Your task to perform on an android device: remove spam from my inbox in the gmail app Image 0: 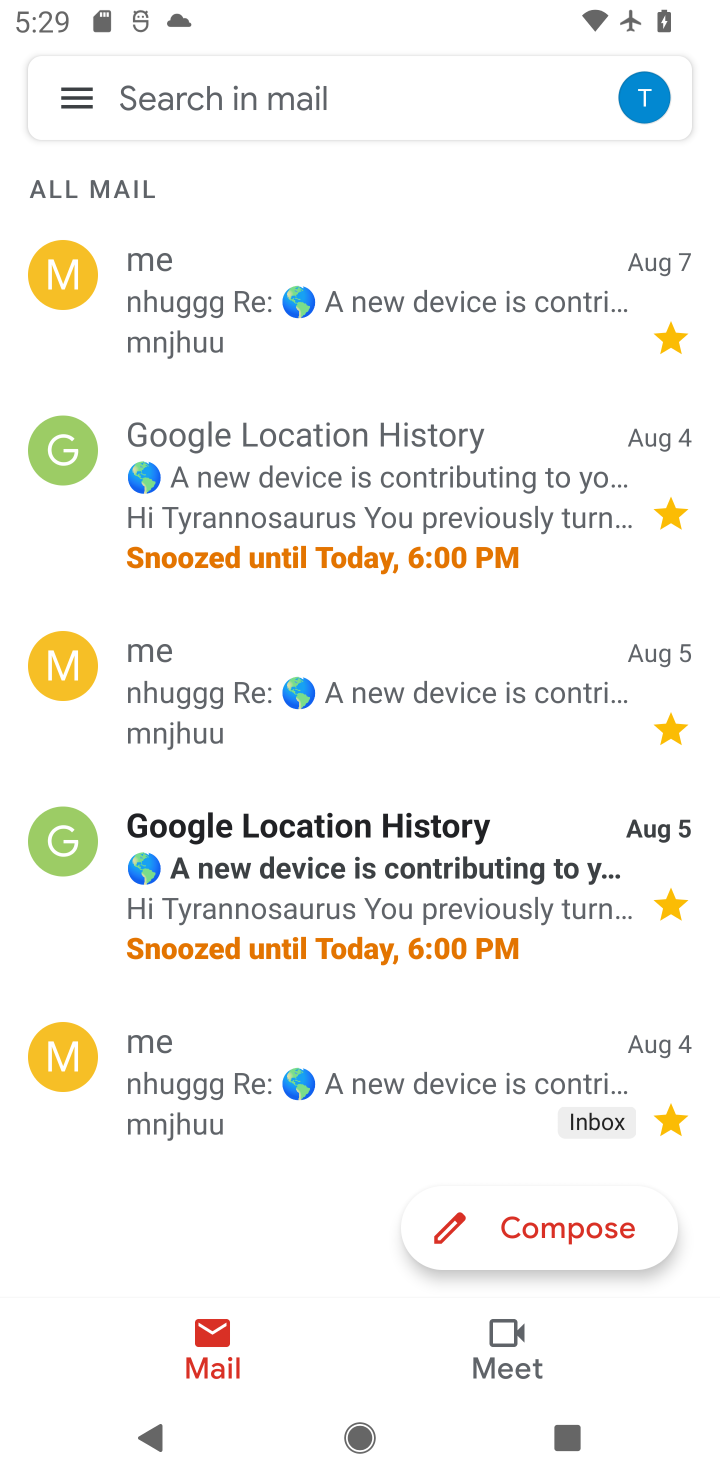
Step 0: click (100, 107)
Your task to perform on an android device: remove spam from my inbox in the gmail app Image 1: 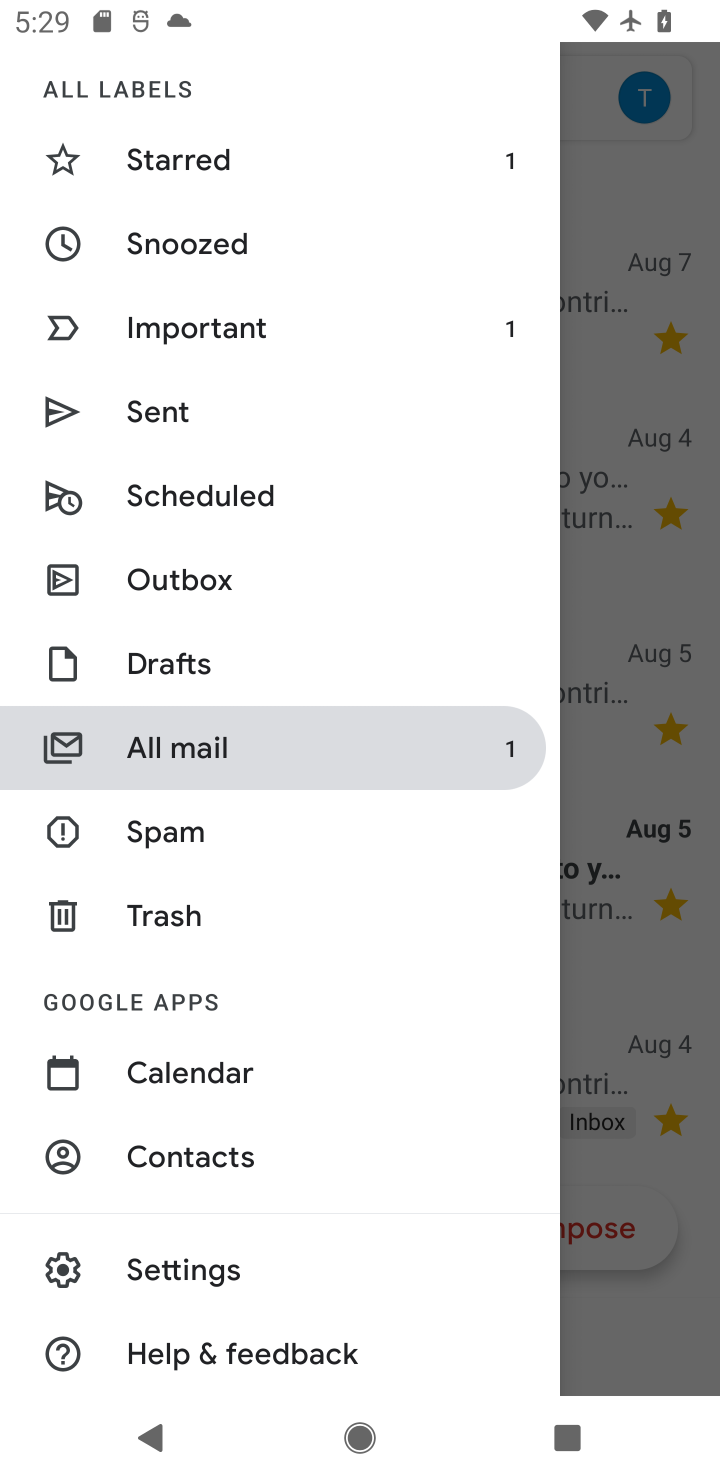
Step 1: click (204, 827)
Your task to perform on an android device: remove spam from my inbox in the gmail app Image 2: 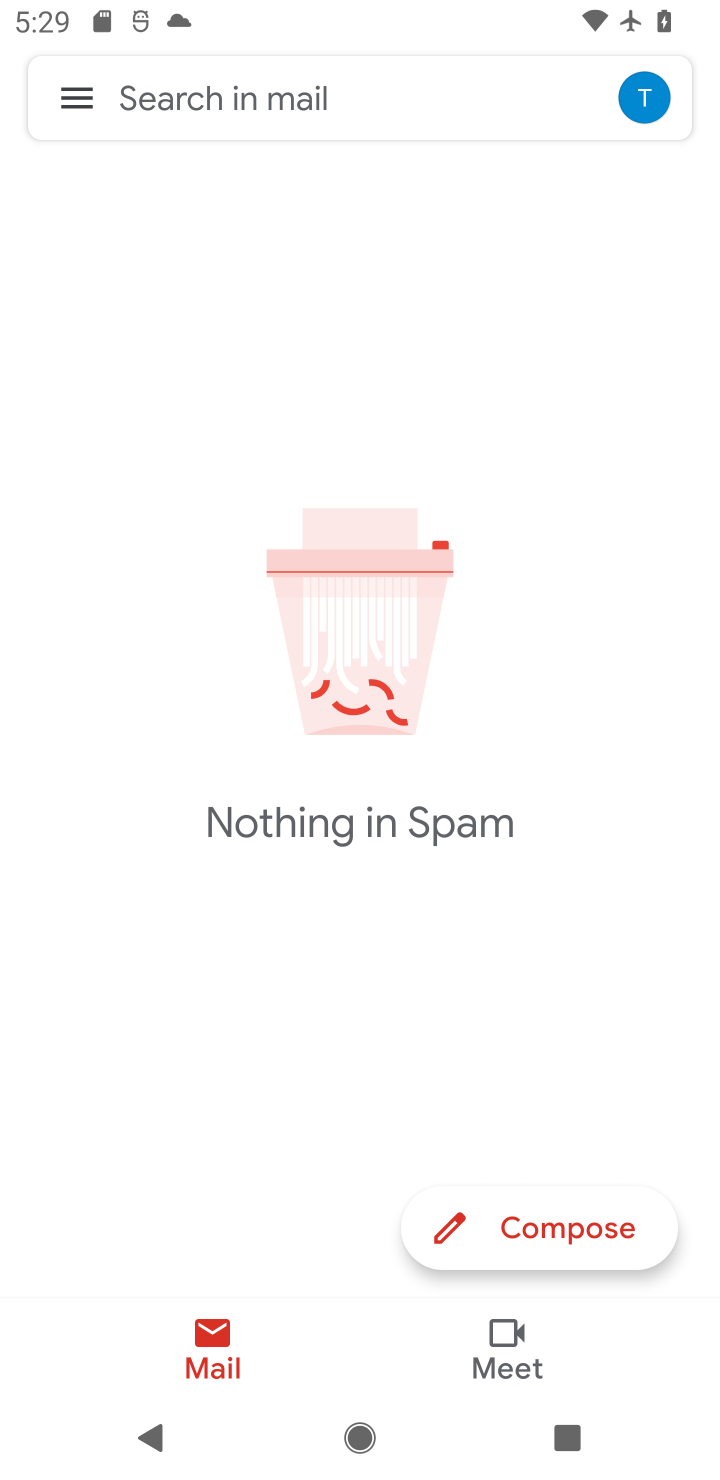
Step 2: task complete